Your task to perform on an android device: What's on my calendar tomorrow? Image 0: 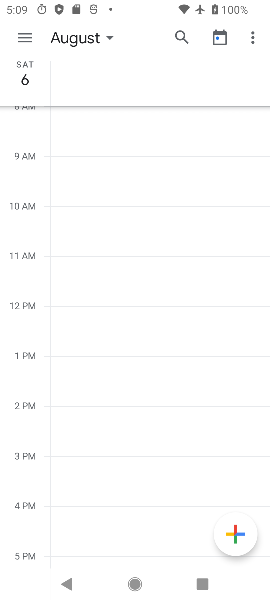
Step 0: press back button
Your task to perform on an android device: What's on my calendar tomorrow? Image 1: 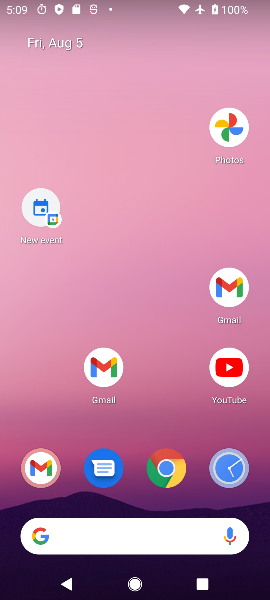
Step 1: drag from (120, 518) to (155, 185)
Your task to perform on an android device: What's on my calendar tomorrow? Image 2: 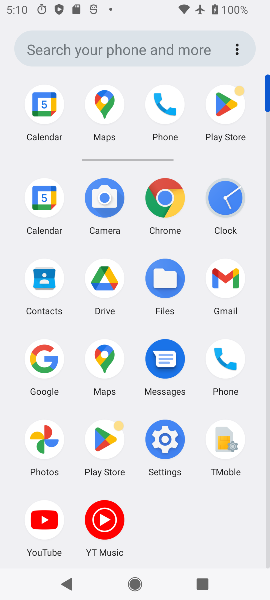
Step 2: click (36, 192)
Your task to perform on an android device: What's on my calendar tomorrow? Image 3: 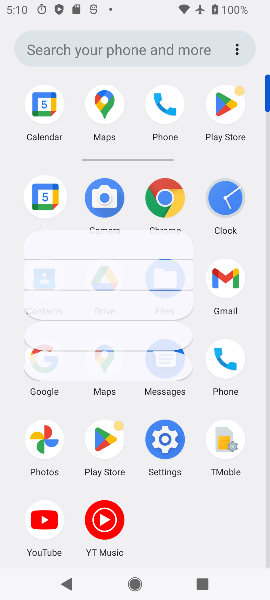
Step 3: click (37, 191)
Your task to perform on an android device: What's on my calendar tomorrow? Image 4: 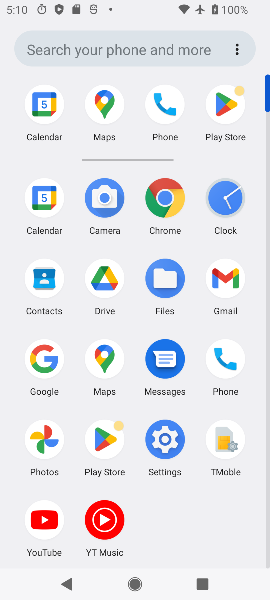
Step 4: click (40, 197)
Your task to perform on an android device: What's on my calendar tomorrow? Image 5: 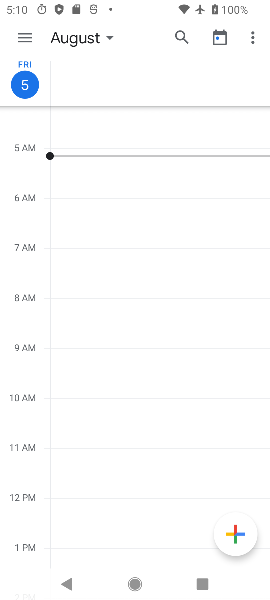
Step 5: click (107, 33)
Your task to perform on an android device: What's on my calendar tomorrow? Image 6: 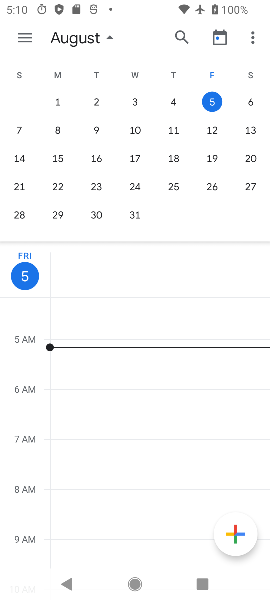
Step 6: click (238, 105)
Your task to perform on an android device: What's on my calendar tomorrow? Image 7: 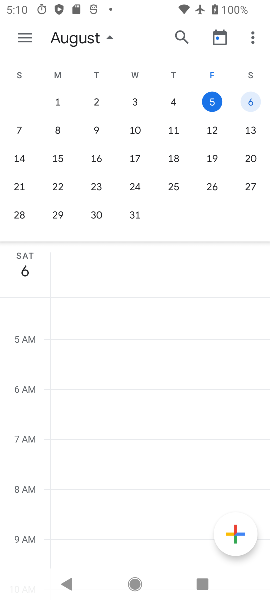
Step 7: click (244, 100)
Your task to perform on an android device: What's on my calendar tomorrow? Image 8: 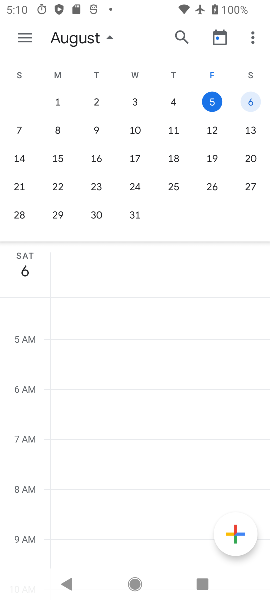
Step 8: task complete